Your task to perform on an android device: Open CNN.com Image 0: 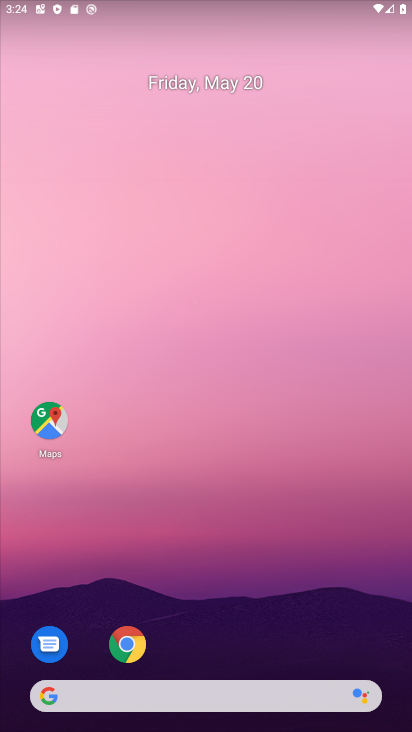
Step 0: click (123, 655)
Your task to perform on an android device: Open CNN.com Image 1: 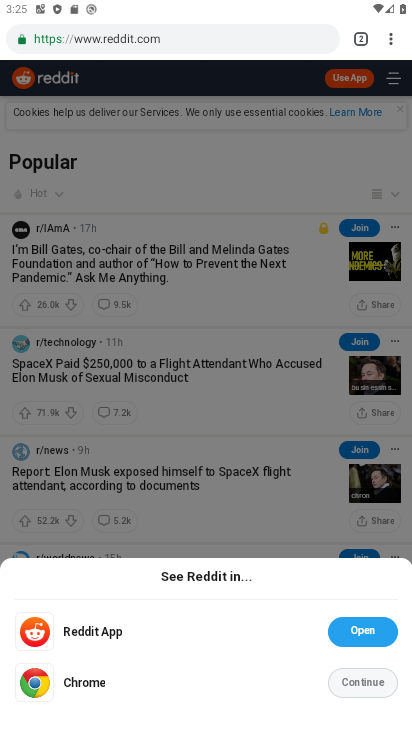
Step 1: click (198, 42)
Your task to perform on an android device: Open CNN.com Image 2: 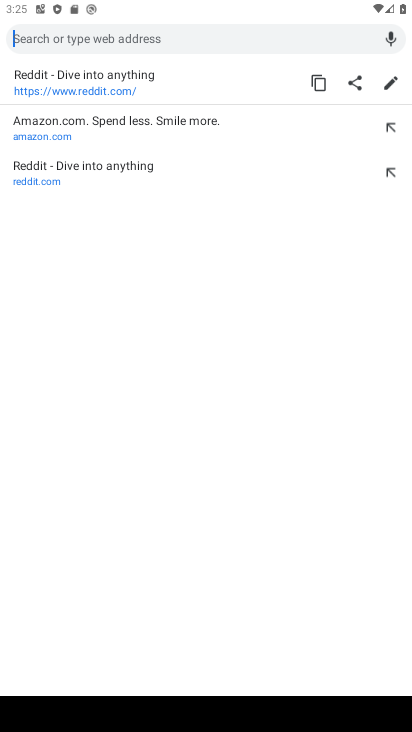
Step 2: type "cnn"
Your task to perform on an android device: Open CNN.com Image 3: 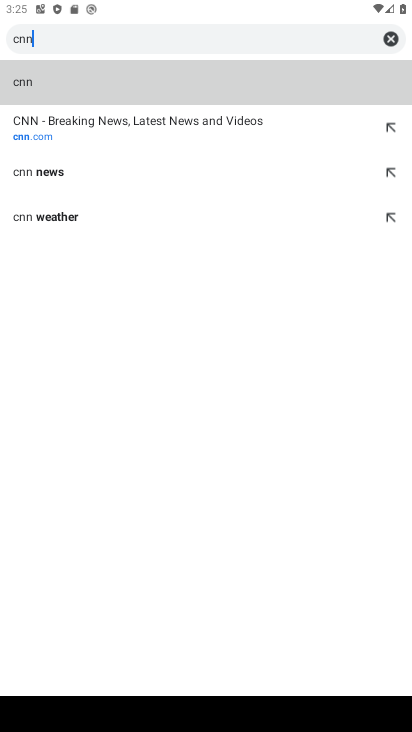
Step 3: click (183, 164)
Your task to perform on an android device: Open CNN.com Image 4: 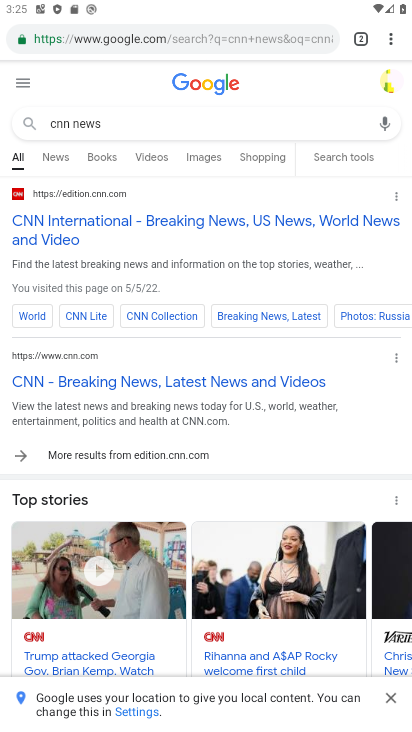
Step 4: click (127, 233)
Your task to perform on an android device: Open CNN.com Image 5: 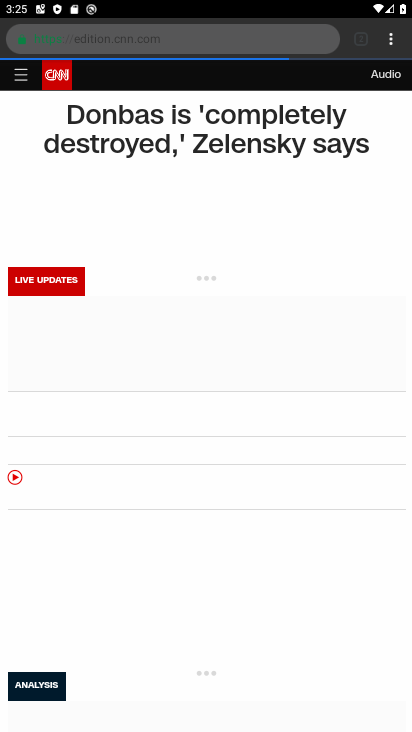
Step 5: task complete